Your task to perform on an android device: set the timer Image 0: 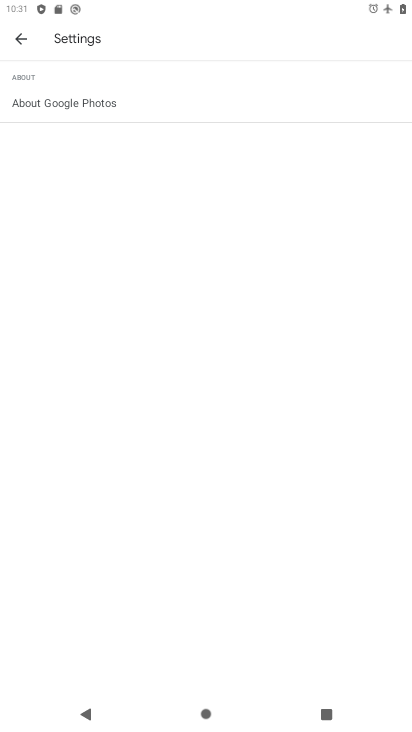
Step 0: press home button
Your task to perform on an android device: set the timer Image 1: 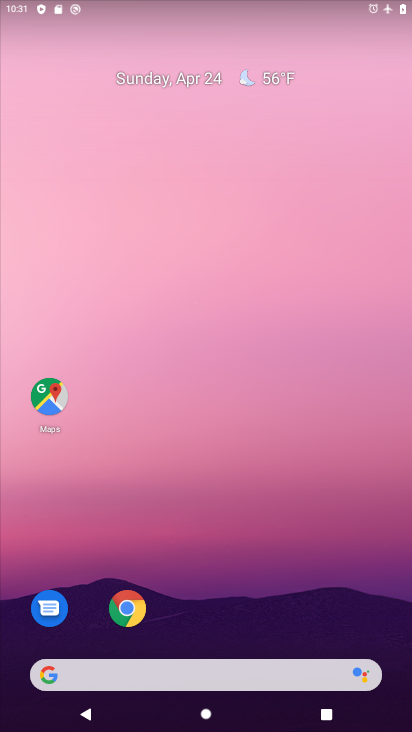
Step 1: drag from (207, 646) to (133, 4)
Your task to perform on an android device: set the timer Image 2: 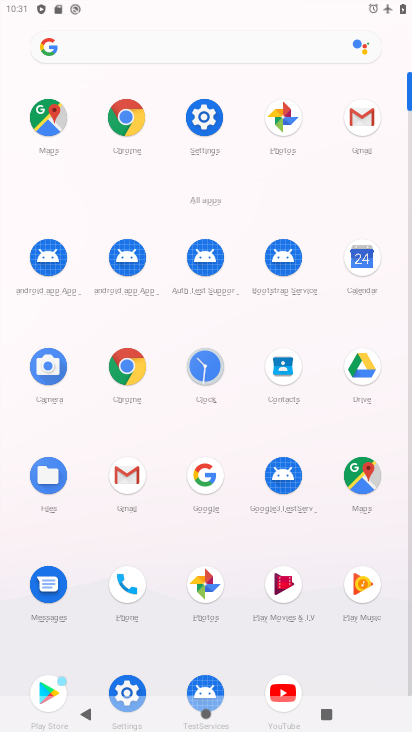
Step 2: click (201, 365)
Your task to perform on an android device: set the timer Image 3: 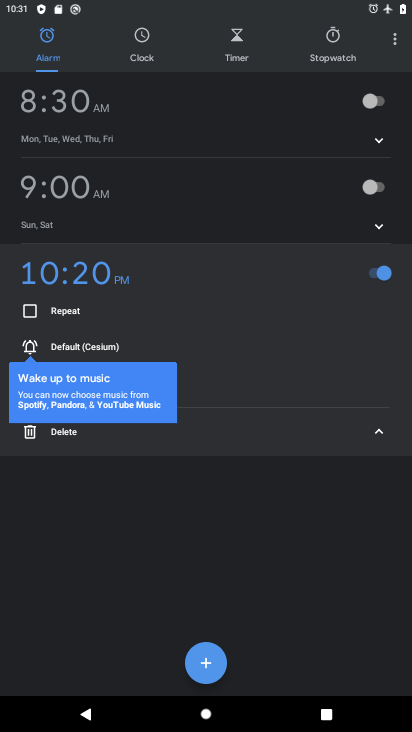
Step 3: click (240, 51)
Your task to perform on an android device: set the timer Image 4: 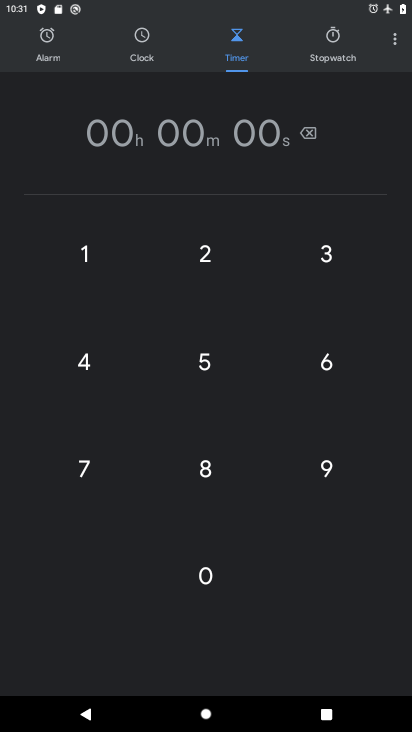
Step 4: click (203, 385)
Your task to perform on an android device: set the timer Image 5: 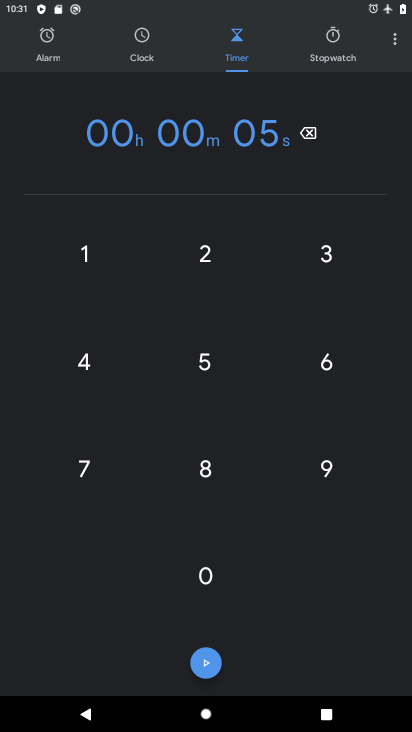
Step 5: click (205, 441)
Your task to perform on an android device: set the timer Image 6: 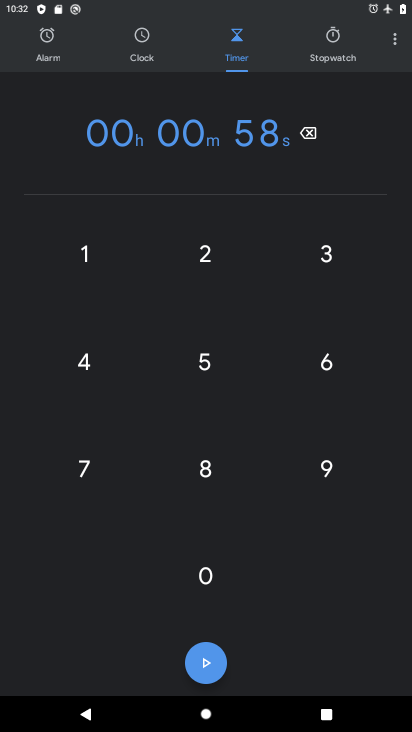
Step 6: click (209, 647)
Your task to perform on an android device: set the timer Image 7: 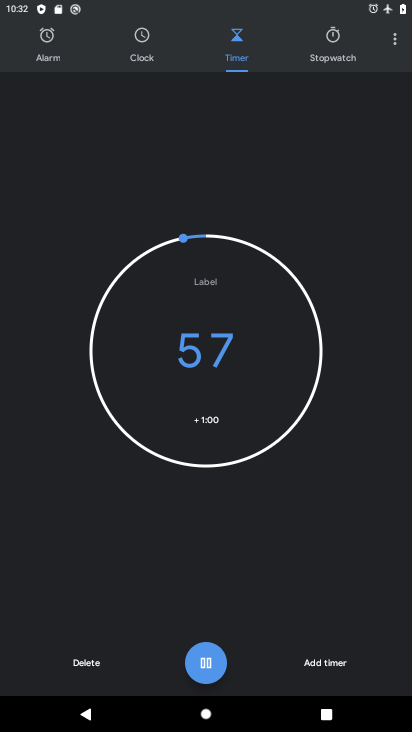
Step 7: click (209, 647)
Your task to perform on an android device: set the timer Image 8: 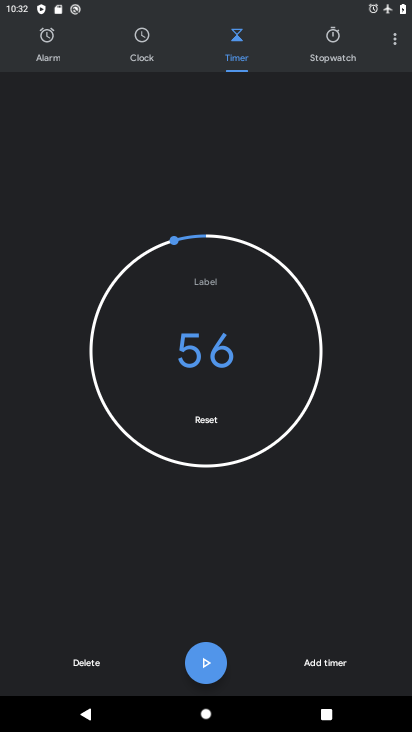
Step 8: task complete